Your task to perform on an android device: Open Chrome and go to settings Image 0: 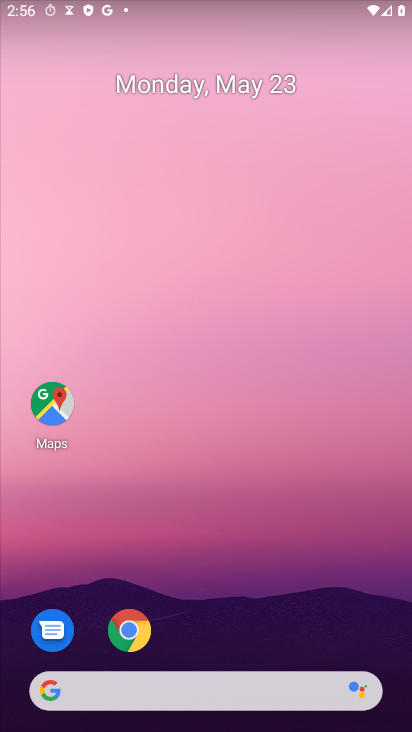
Step 0: drag from (357, 481) to (393, 115)
Your task to perform on an android device: Open Chrome and go to settings Image 1: 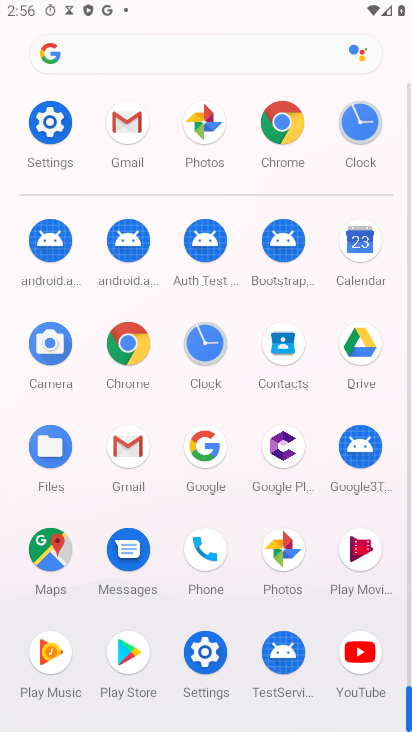
Step 1: click (294, 124)
Your task to perform on an android device: Open Chrome and go to settings Image 2: 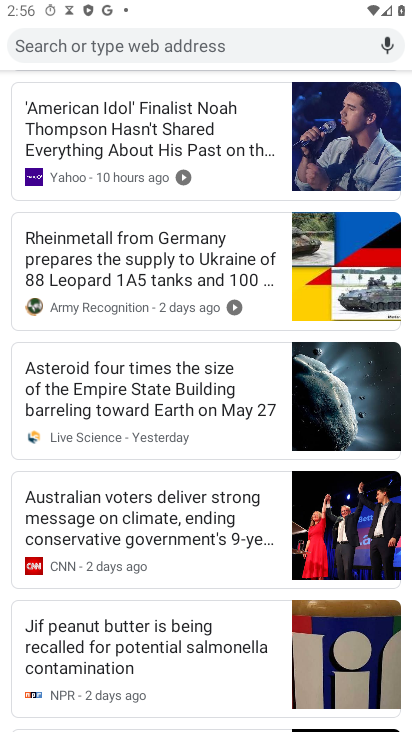
Step 2: task complete